Your task to perform on an android device: delete browsing data in the chrome app Image 0: 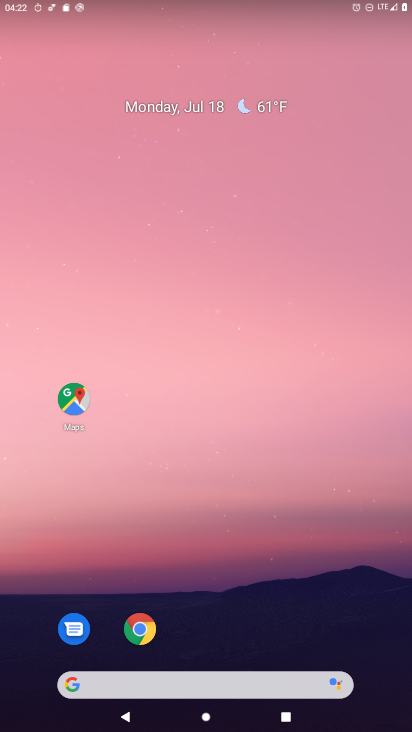
Step 0: click (141, 631)
Your task to perform on an android device: delete browsing data in the chrome app Image 1: 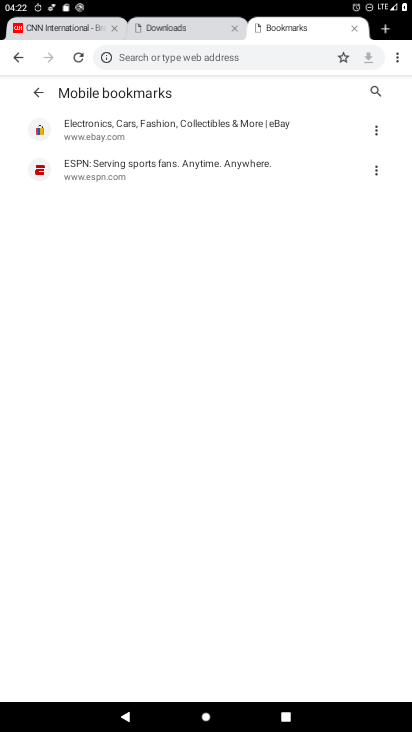
Step 1: click (399, 57)
Your task to perform on an android device: delete browsing data in the chrome app Image 2: 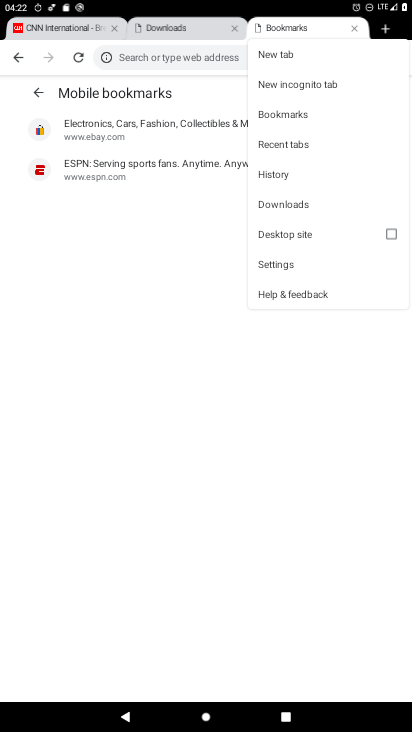
Step 2: click (284, 263)
Your task to perform on an android device: delete browsing data in the chrome app Image 3: 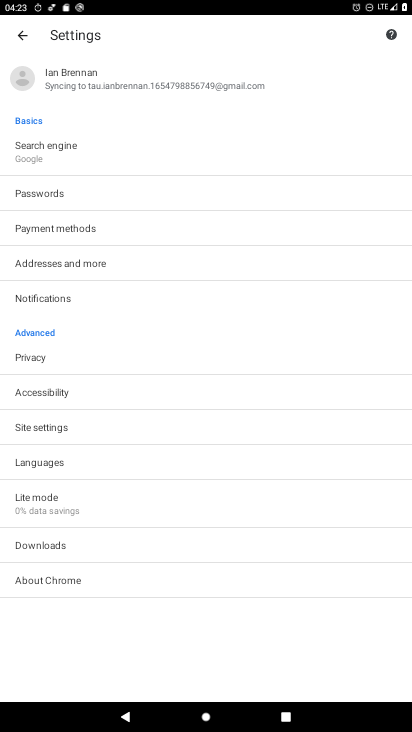
Step 3: click (35, 361)
Your task to perform on an android device: delete browsing data in the chrome app Image 4: 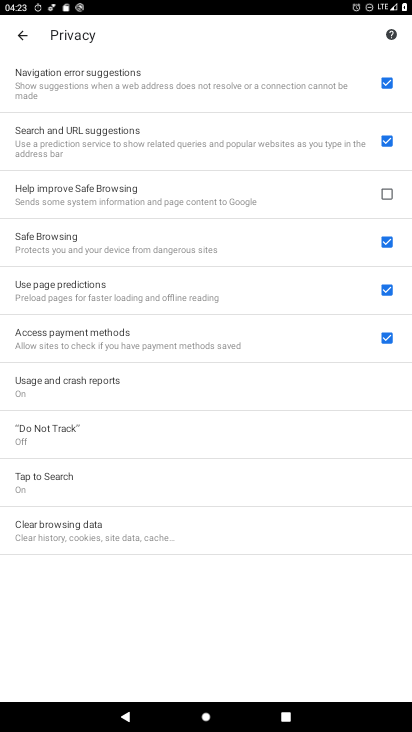
Step 4: click (99, 534)
Your task to perform on an android device: delete browsing data in the chrome app Image 5: 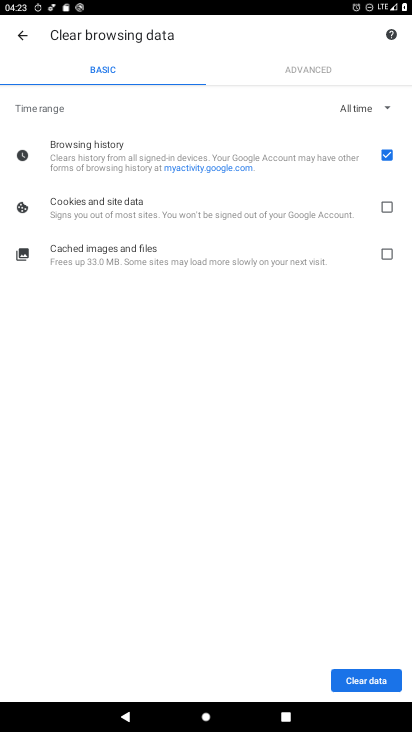
Step 5: click (380, 207)
Your task to perform on an android device: delete browsing data in the chrome app Image 6: 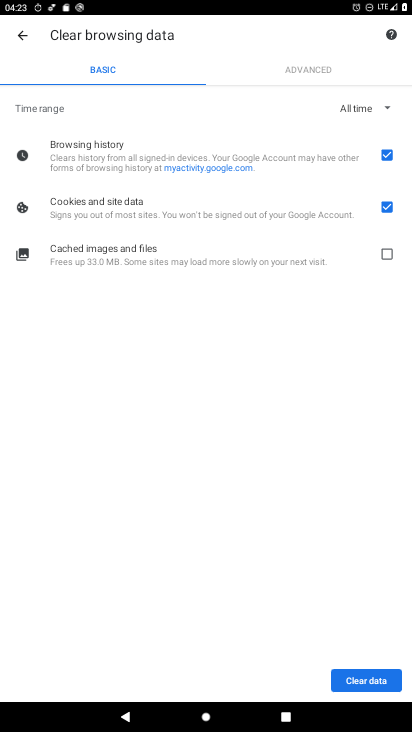
Step 6: click (391, 254)
Your task to perform on an android device: delete browsing data in the chrome app Image 7: 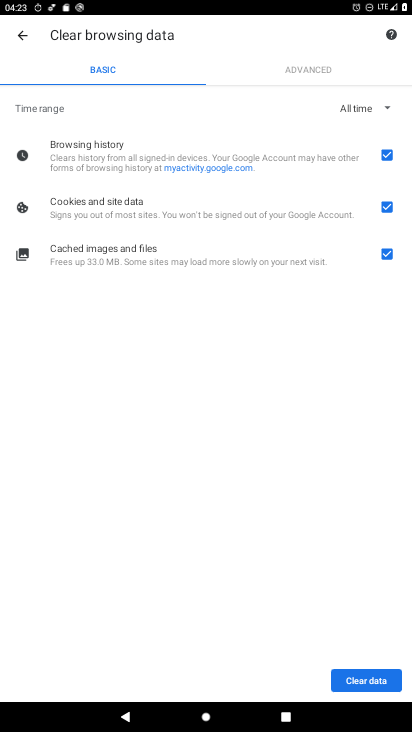
Step 7: task complete